Your task to perform on an android device: Go to Google Image 0: 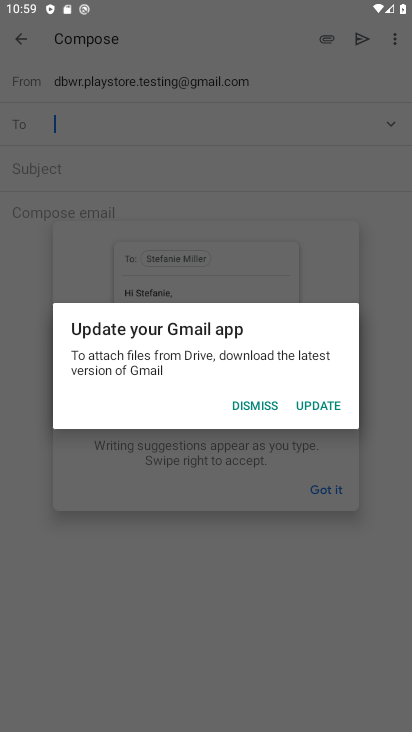
Step 0: press home button
Your task to perform on an android device: Go to Google Image 1: 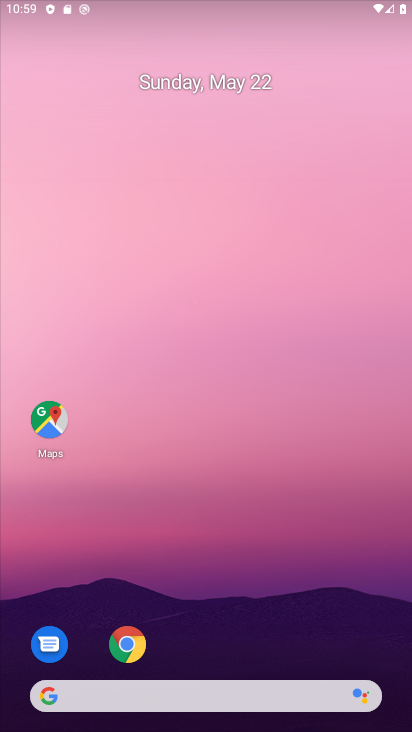
Step 1: drag from (387, 646) to (295, 45)
Your task to perform on an android device: Go to Google Image 2: 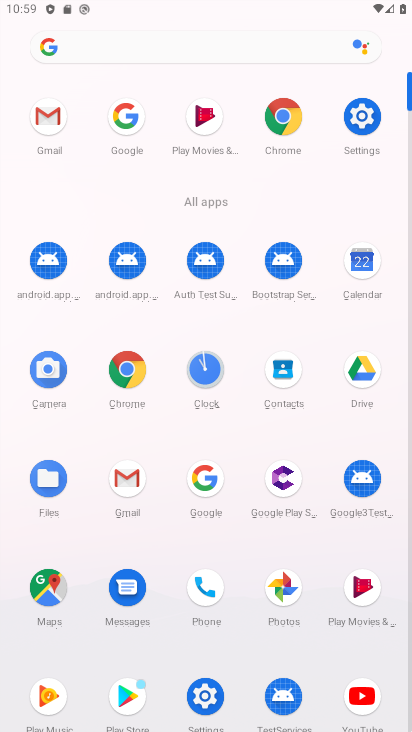
Step 2: click (200, 497)
Your task to perform on an android device: Go to Google Image 3: 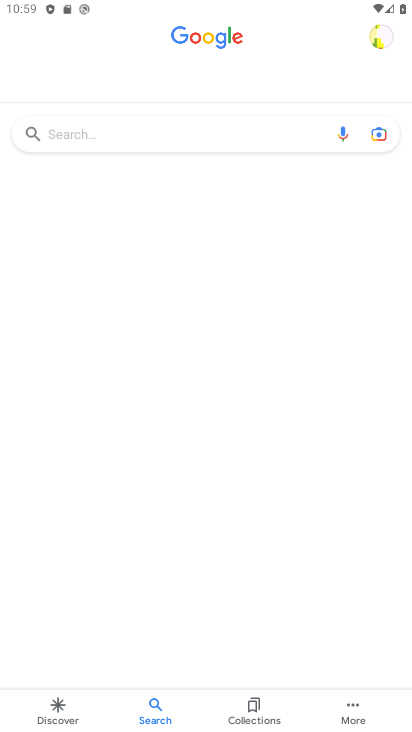
Step 3: task complete